Your task to perform on an android device: What is the speed of light? Image 0: 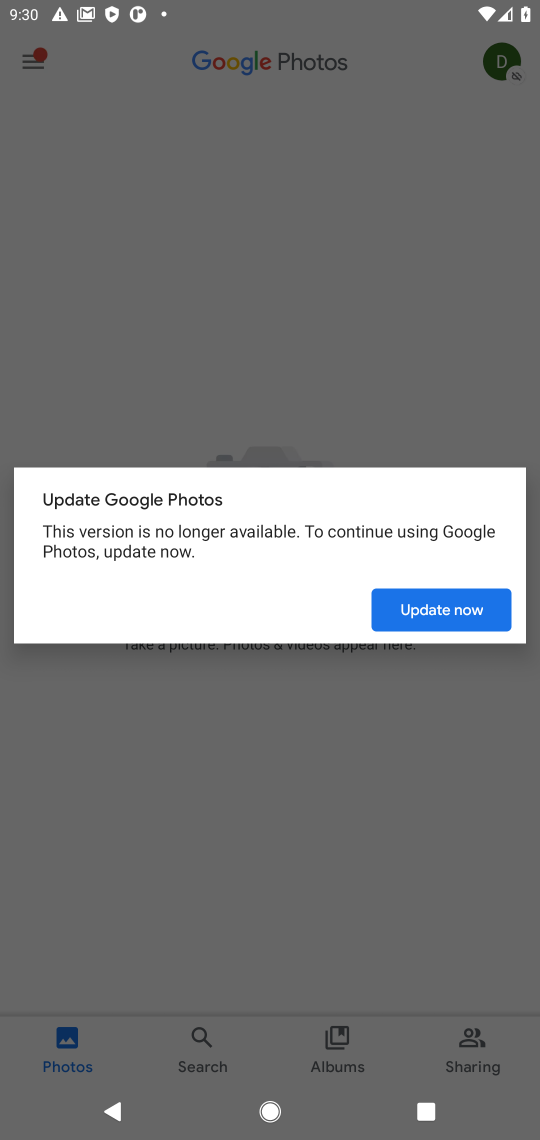
Step 0: press home button
Your task to perform on an android device: What is the speed of light? Image 1: 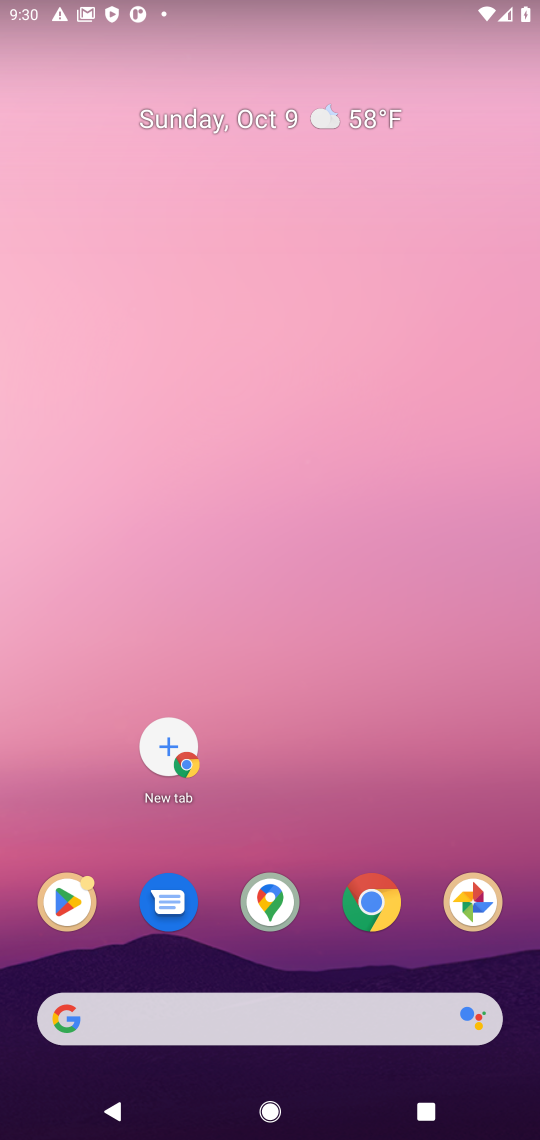
Step 1: click (387, 920)
Your task to perform on an android device: What is the speed of light? Image 2: 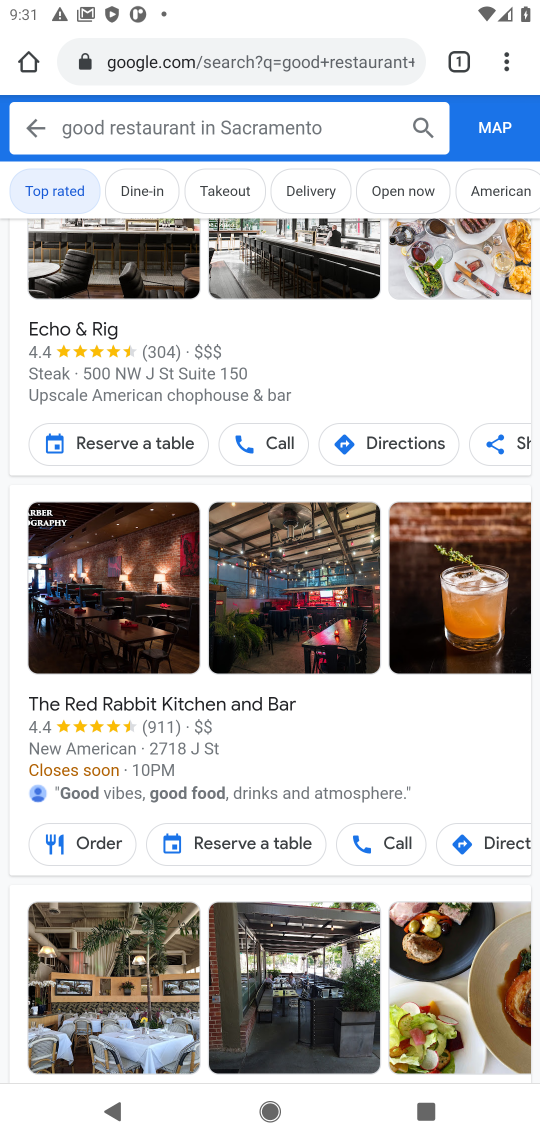
Step 2: click (239, 65)
Your task to perform on an android device: What is the speed of light? Image 3: 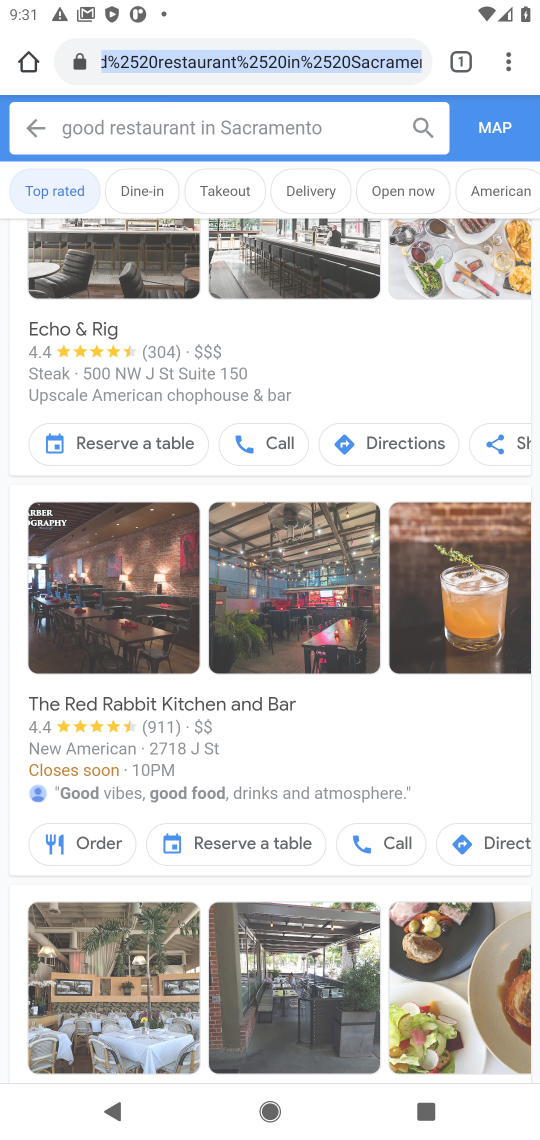
Step 3: click (239, 65)
Your task to perform on an android device: What is the speed of light? Image 4: 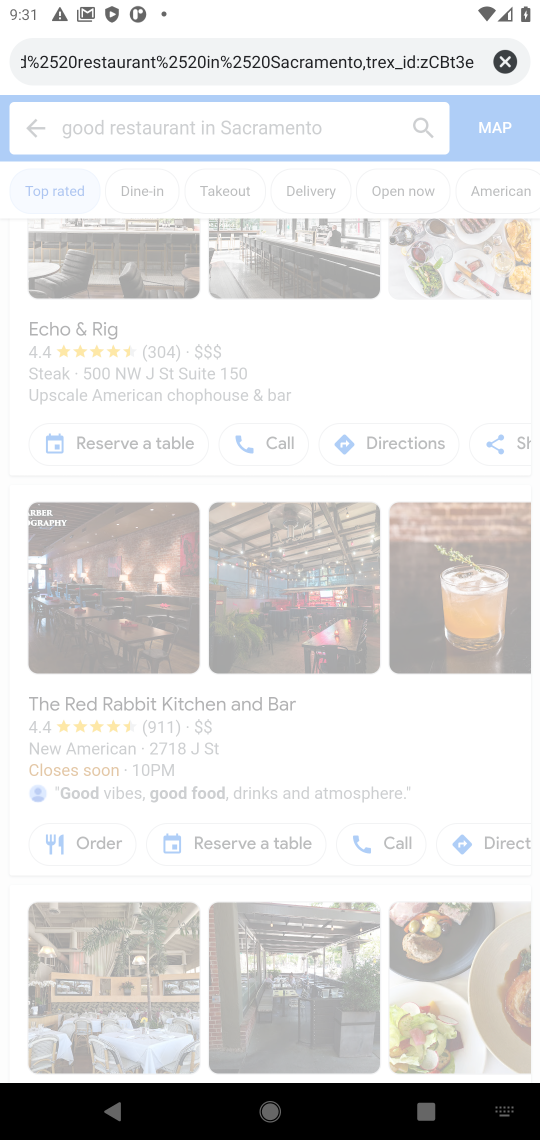
Step 4: type "speed of light"
Your task to perform on an android device: What is the speed of light? Image 5: 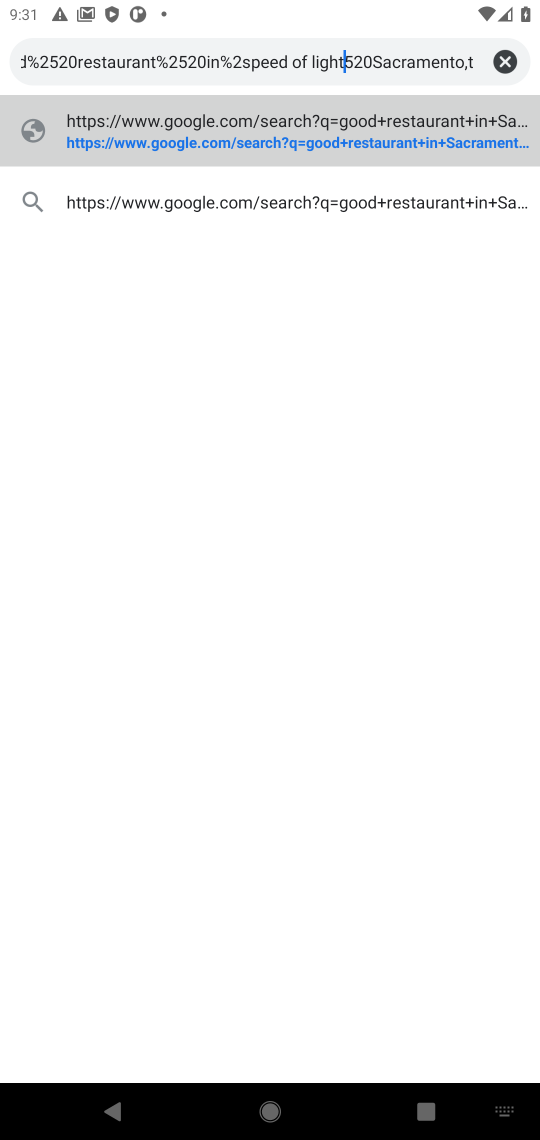
Step 5: click (505, 65)
Your task to perform on an android device: What is the speed of light? Image 6: 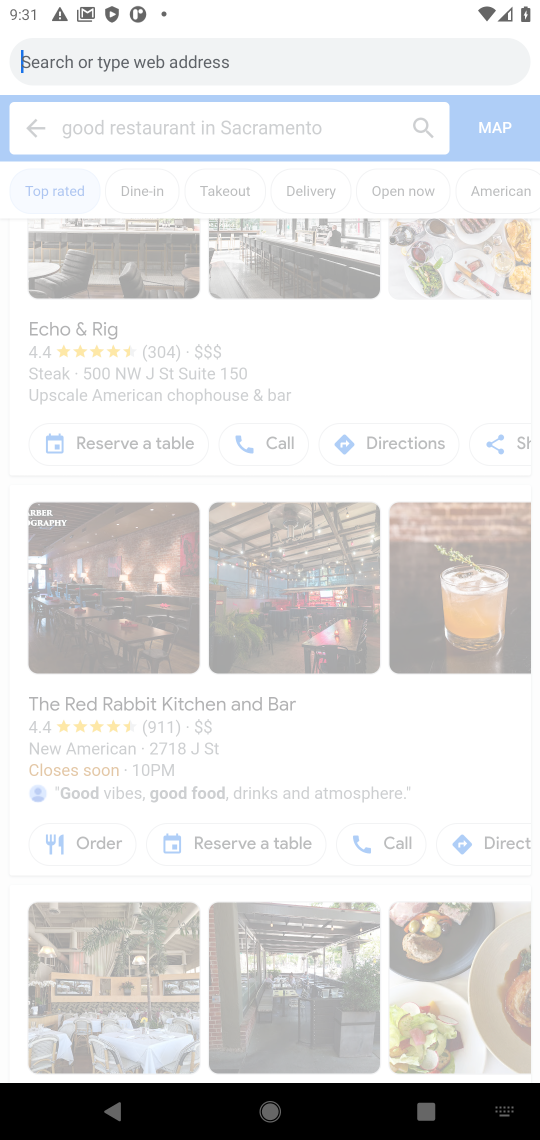
Step 6: type "speed of light"
Your task to perform on an android device: What is the speed of light? Image 7: 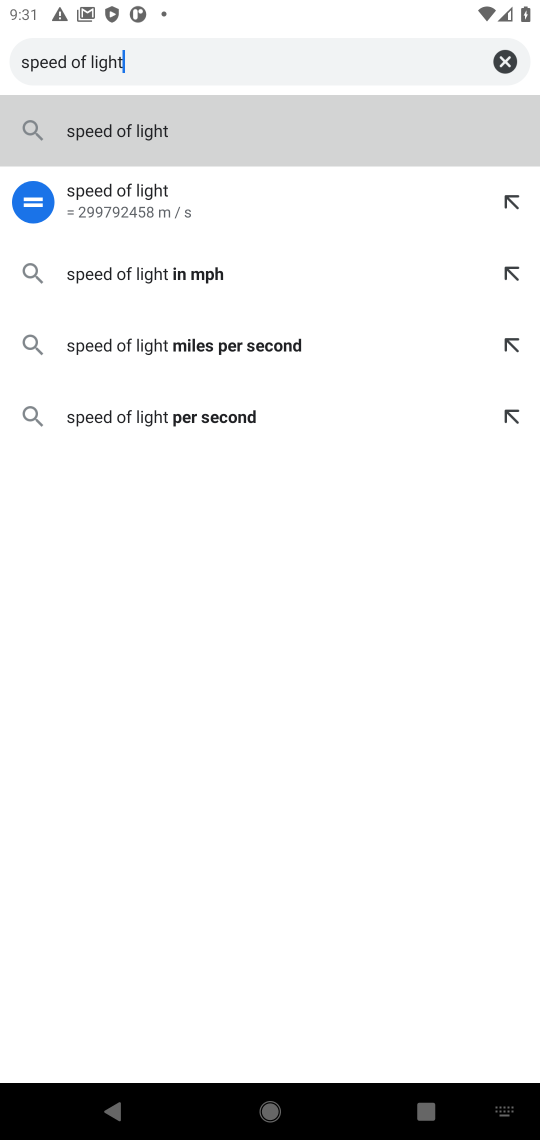
Step 7: click (262, 194)
Your task to perform on an android device: What is the speed of light? Image 8: 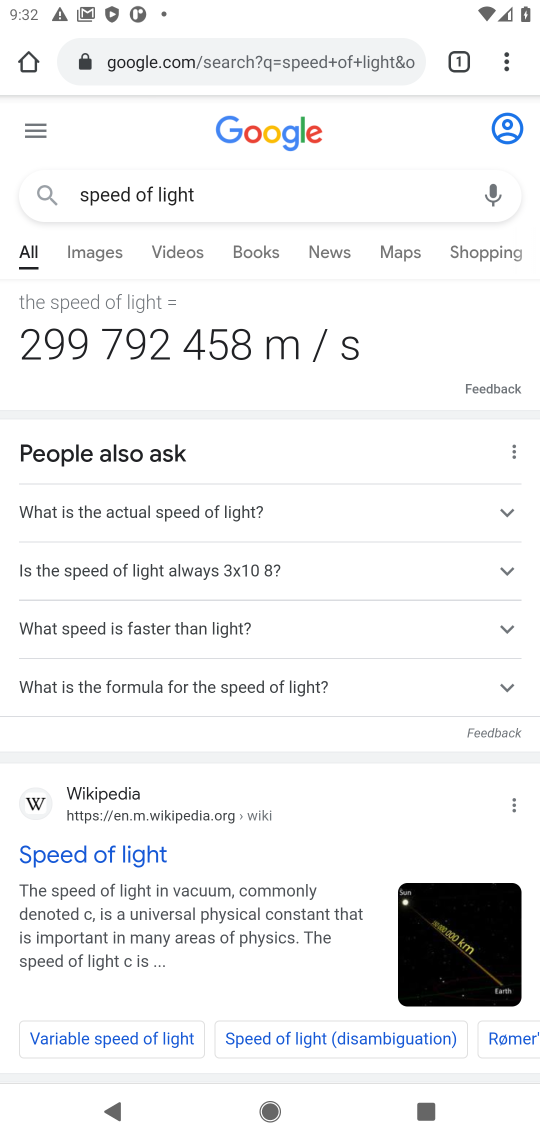
Step 8: task complete